Your task to perform on an android device: turn pop-ups on in chrome Image 0: 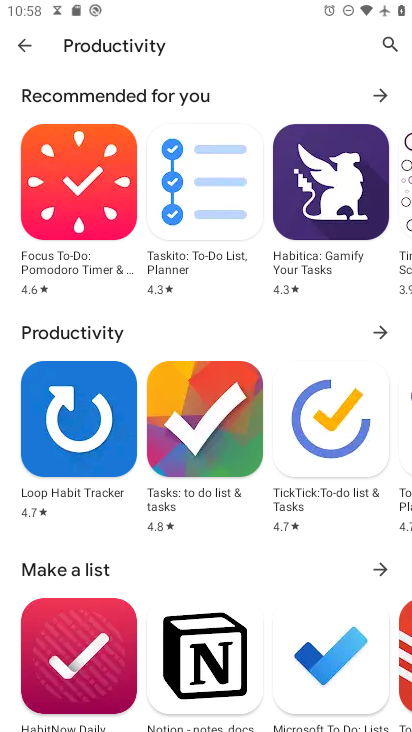
Step 0: press home button
Your task to perform on an android device: turn pop-ups on in chrome Image 1: 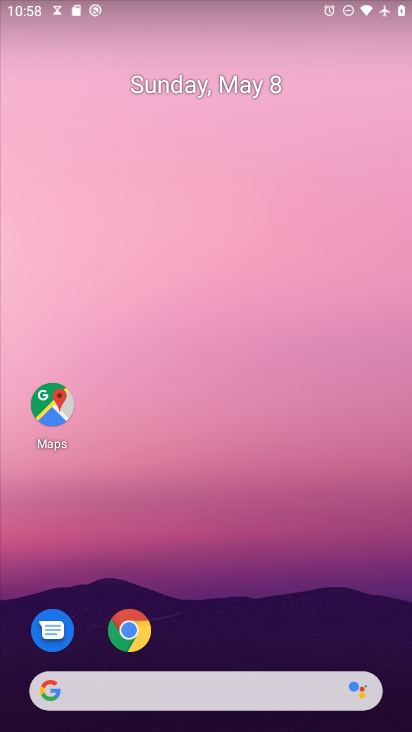
Step 1: click (123, 627)
Your task to perform on an android device: turn pop-ups on in chrome Image 2: 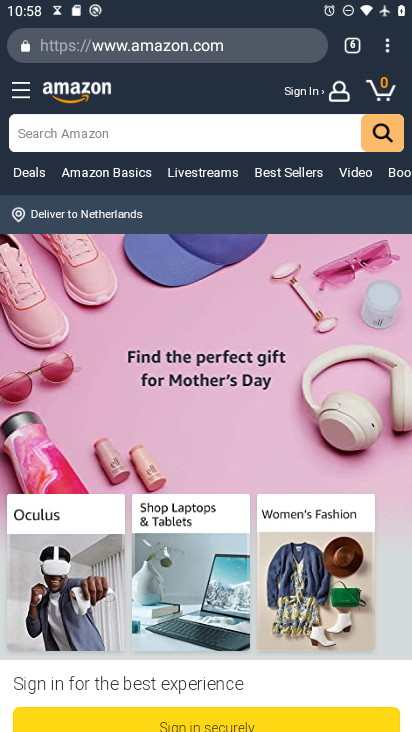
Step 2: drag from (390, 50) to (250, 555)
Your task to perform on an android device: turn pop-ups on in chrome Image 3: 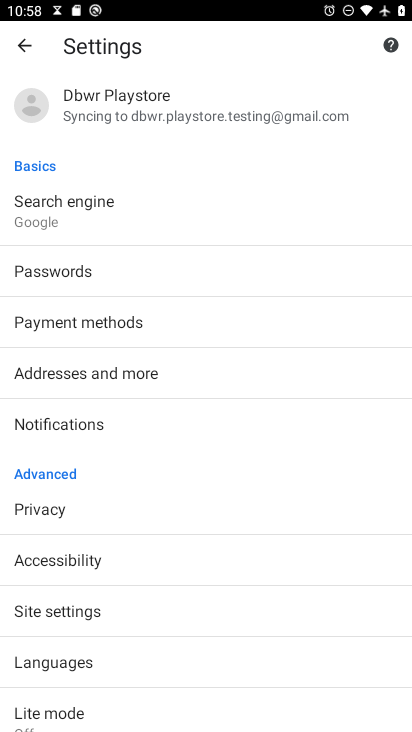
Step 3: click (52, 614)
Your task to perform on an android device: turn pop-ups on in chrome Image 4: 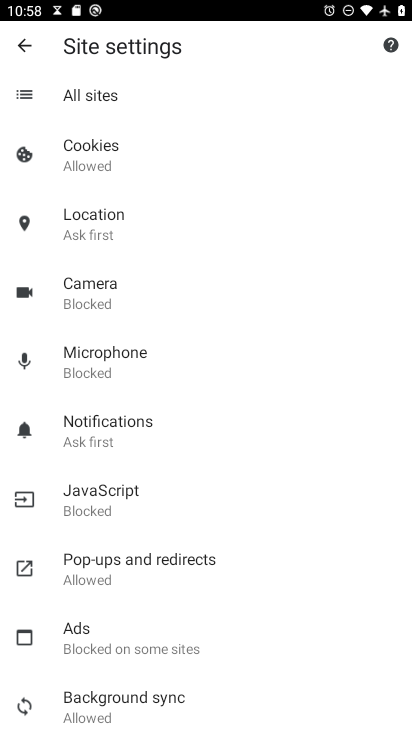
Step 4: click (123, 562)
Your task to perform on an android device: turn pop-ups on in chrome Image 5: 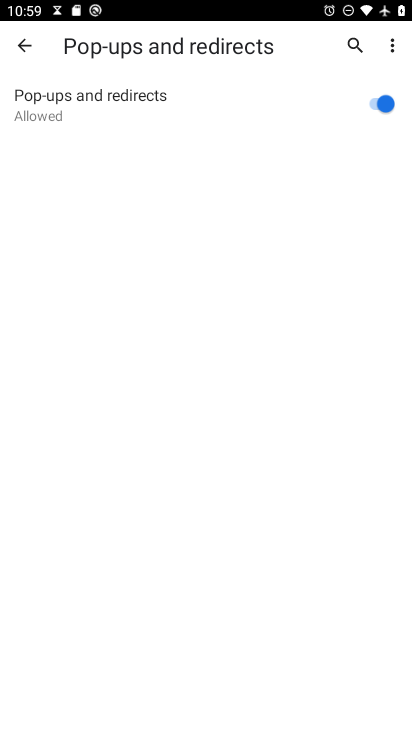
Step 5: task complete